Your task to perform on an android device: add a contact Image 0: 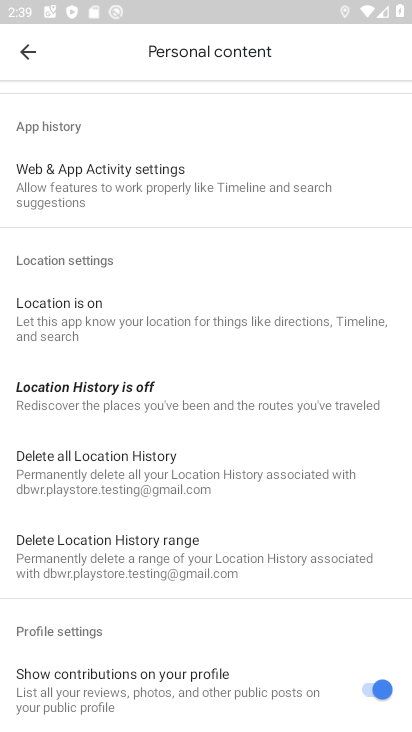
Step 0: press home button
Your task to perform on an android device: add a contact Image 1: 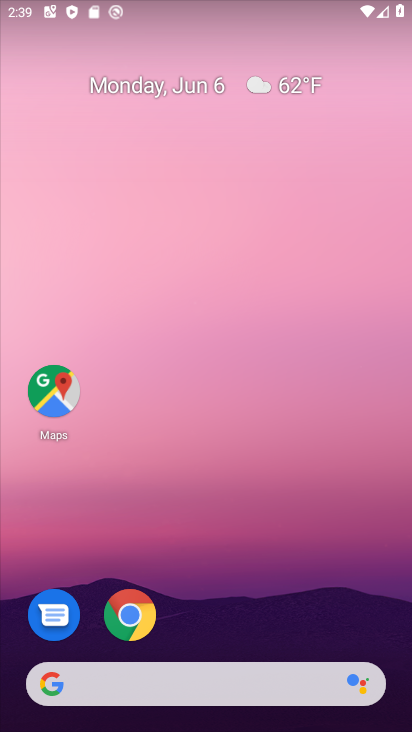
Step 1: drag from (243, 681) to (336, 0)
Your task to perform on an android device: add a contact Image 2: 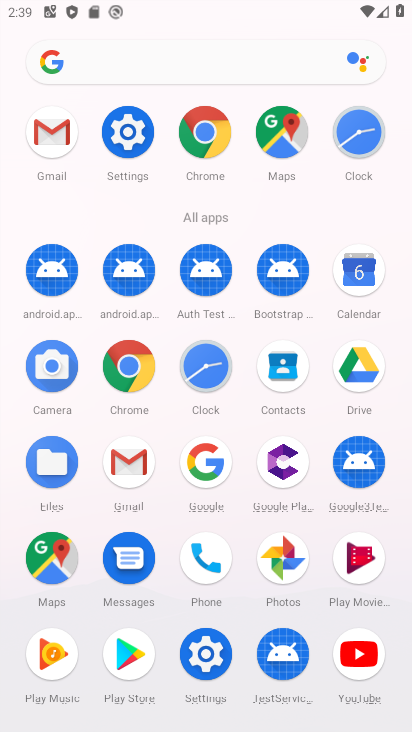
Step 2: click (278, 378)
Your task to perform on an android device: add a contact Image 3: 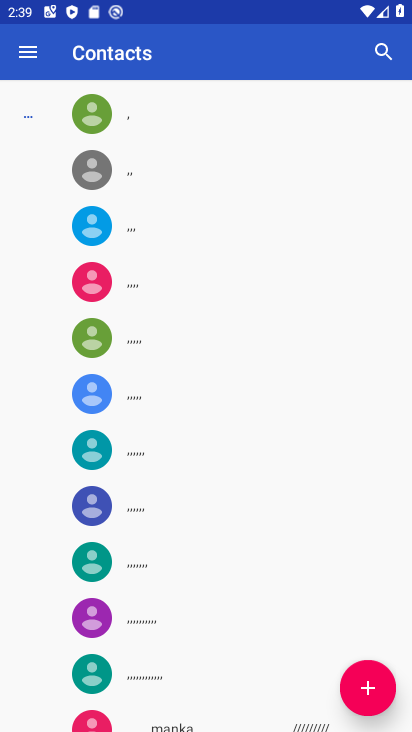
Step 3: click (373, 684)
Your task to perform on an android device: add a contact Image 4: 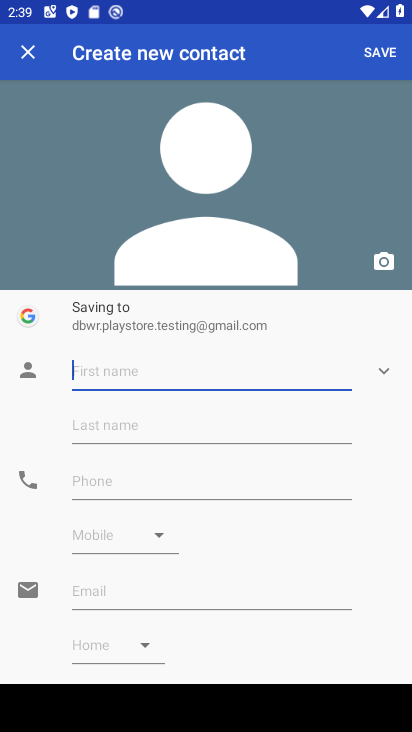
Step 4: type "ggdfjfgj"
Your task to perform on an android device: add a contact Image 5: 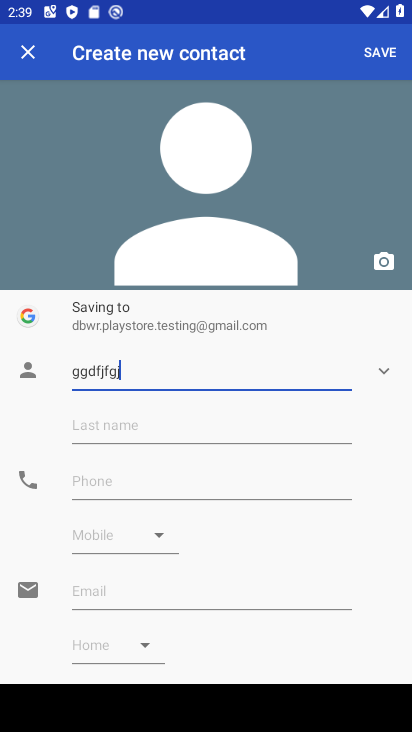
Step 5: click (205, 486)
Your task to perform on an android device: add a contact Image 6: 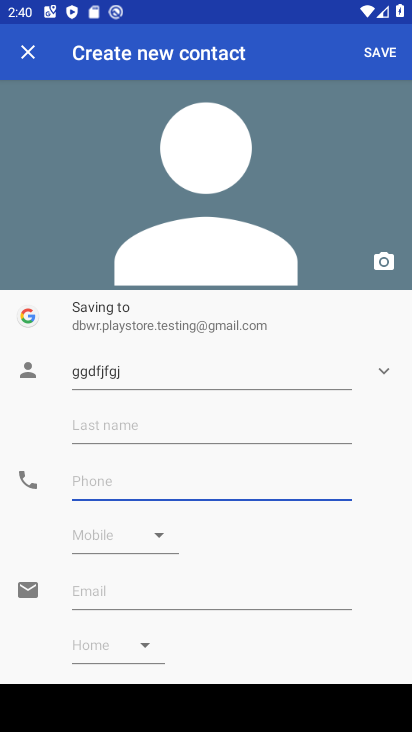
Step 6: type "98754567865"
Your task to perform on an android device: add a contact Image 7: 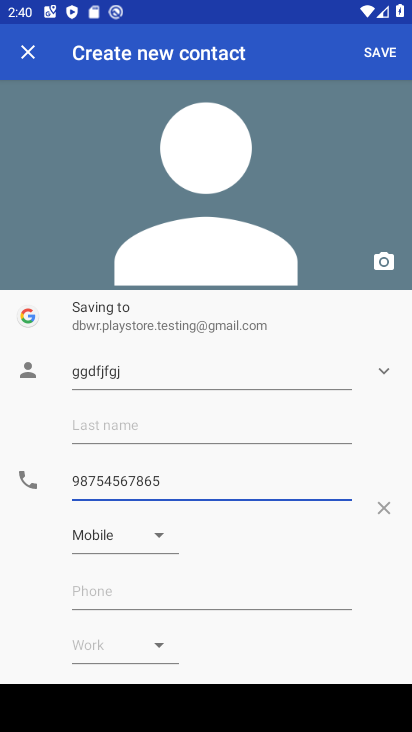
Step 7: click (370, 50)
Your task to perform on an android device: add a contact Image 8: 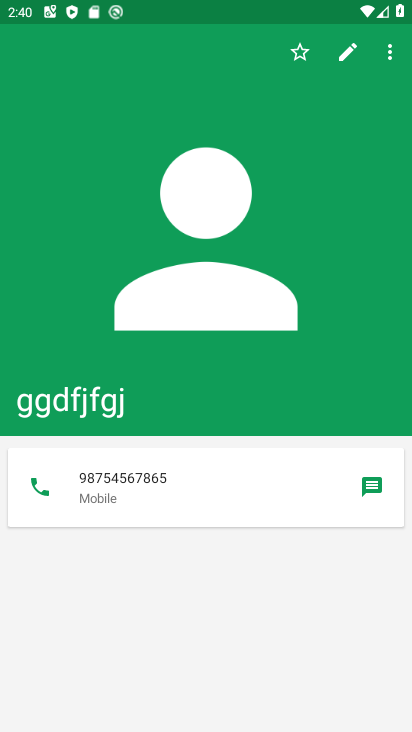
Step 8: task complete